Your task to perform on an android device: Play the last video I watched on Youtube Image 0: 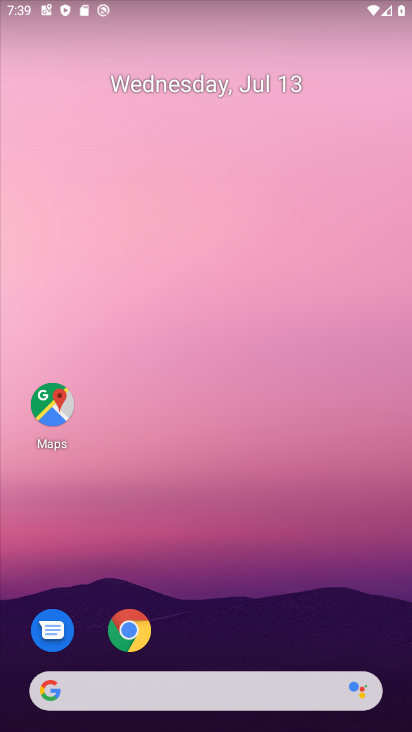
Step 0: drag from (332, 599) to (336, 113)
Your task to perform on an android device: Play the last video I watched on Youtube Image 1: 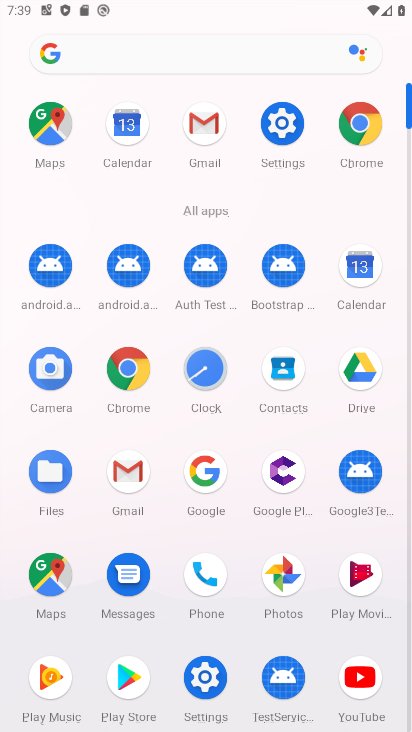
Step 1: click (354, 679)
Your task to perform on an android device: Play the last video I watched on Youtube Image 2: 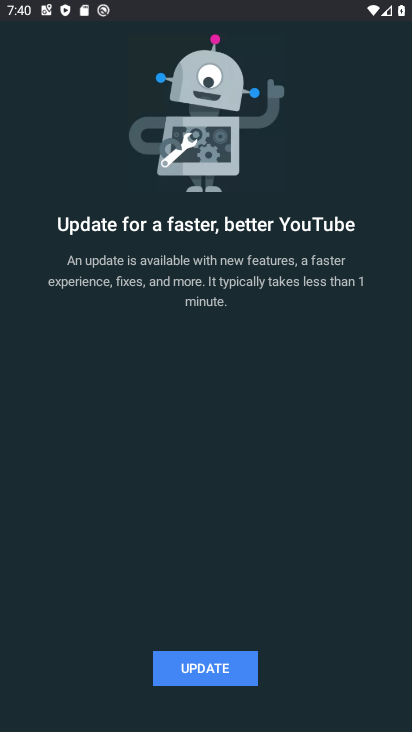
Step 2: click (227, 668)
Your task to perform on an android device: Play the last video I watched on Youtube Image 3: 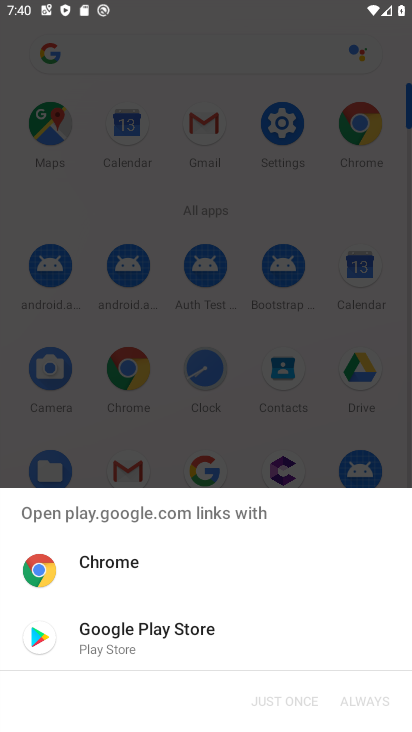
Step 3: click (127, 639)
Your task to perform on an android device: Play the last video I watched on Youtube Image 4: 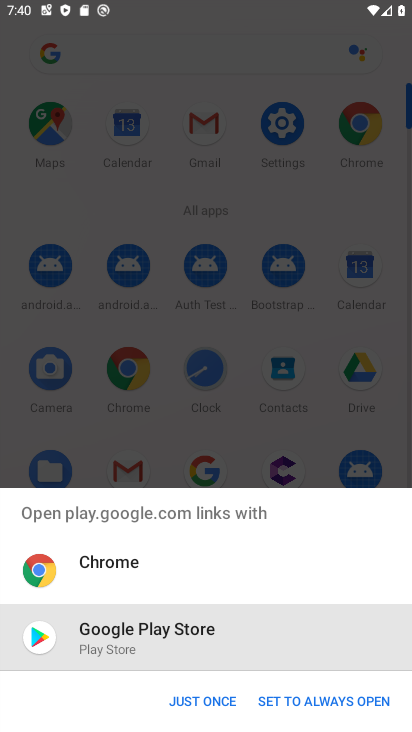
Step 4: click (201, 697)
Your task to perform on an android device: Play the last video I watched on Youtube Image 5: 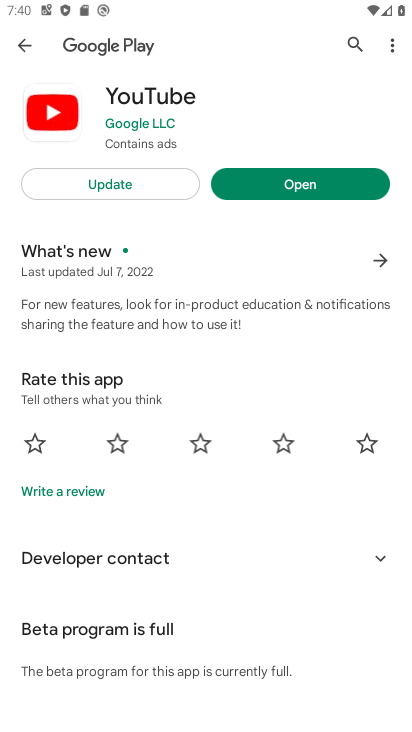
Step 5: click (116, 185)
Your task to perform on an android device: Play the last video I watched on Youtube Image 6: 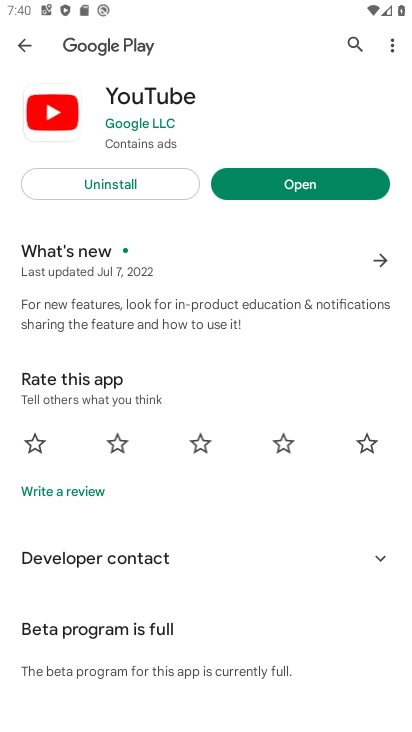
Step 6: click (311, 180)
Your task to perform on an android device: Play the last video I watched on Youtube Image 7: 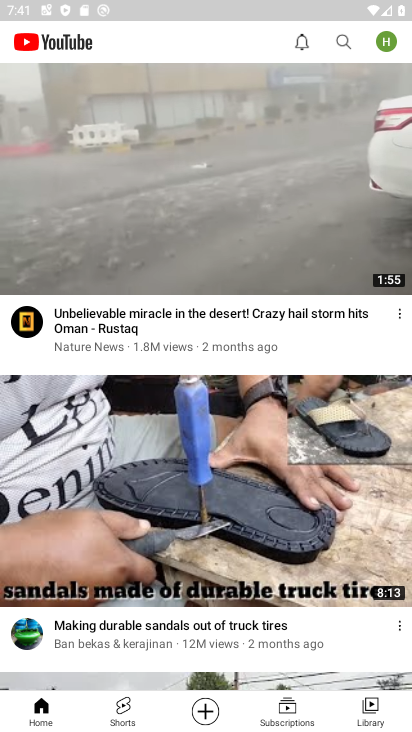
Step 7: click (365, 712)
Your task to perform on an android device: Play the last video I watched on Youtube Image 8: 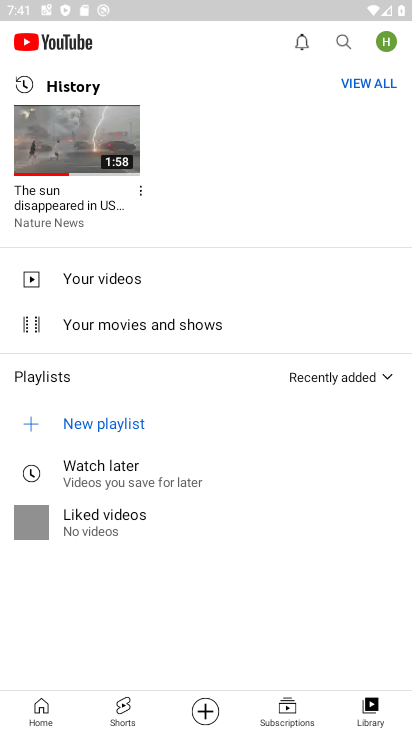
Step 8: click (79, 137)
Your task to perform on an android device: Play the last video I watched on Youtube Image 9: 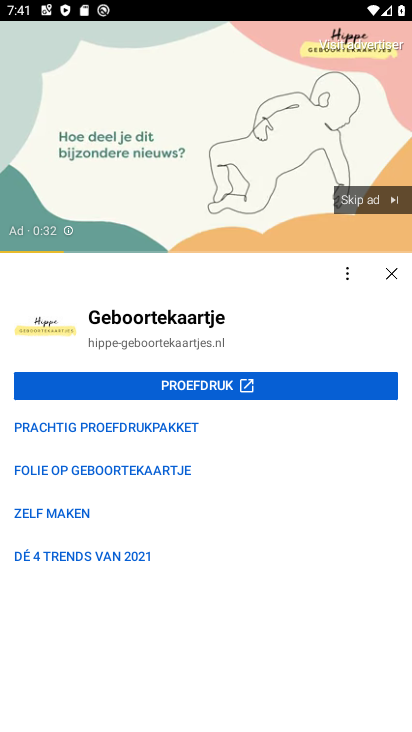
Step 9: task complete